Your task to perform on an android device: turn off notifications in google photos Image 0: 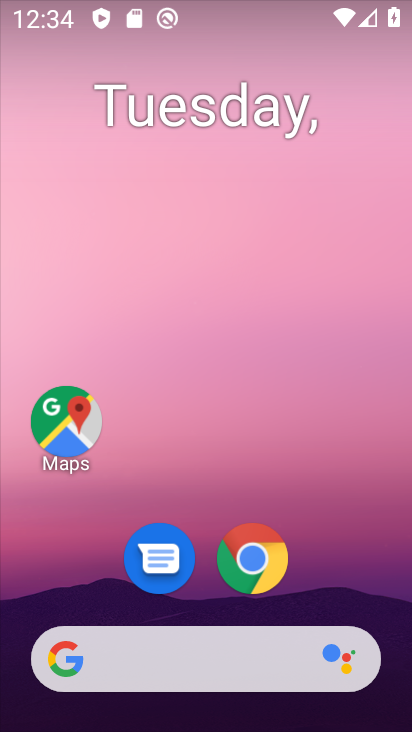
Step 0: drag from (183, 622) to (322, 13)
Your task to perform on an android device: turn off notifications in google photos Image 1: 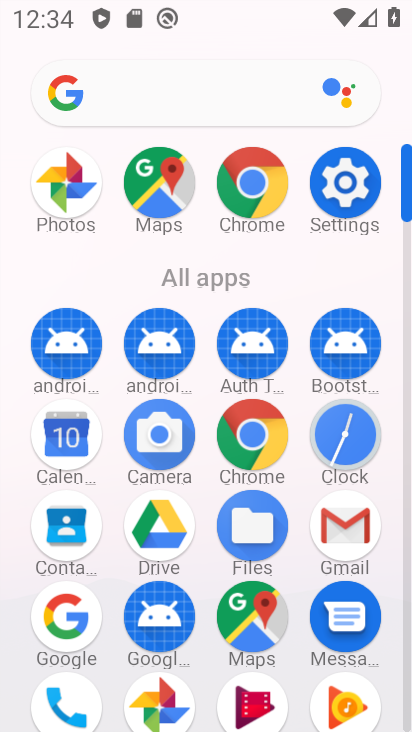
Step 1: drag from (133, 644) to (184, 418)
Your task to perform on an android device: turn off notifications in google photos Image 2: 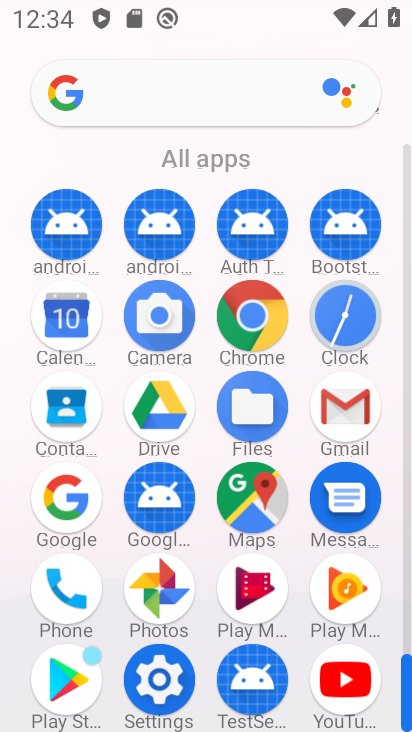
Step 2: click (152, 597)
Your task to perform on an android device: turn off notifications in google photos Image 3: 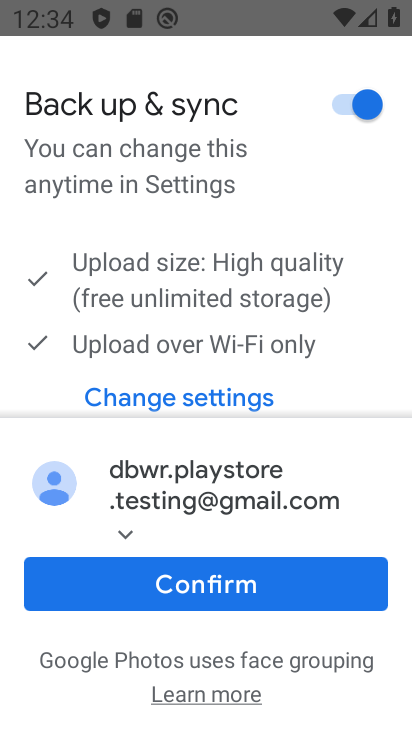
Step 3: click (244, 593)
Your task to perform on an android device: turn off notifications in google photos Image 4: 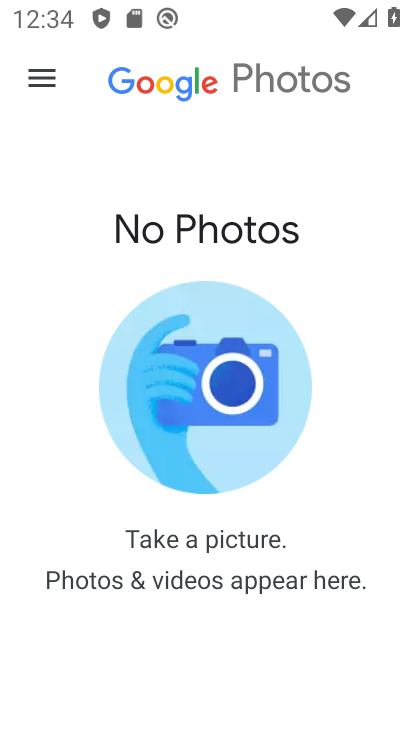
Step 4: click (44, 83)
Your task to perform on an android device: turn off notifications in google photos Image 5: 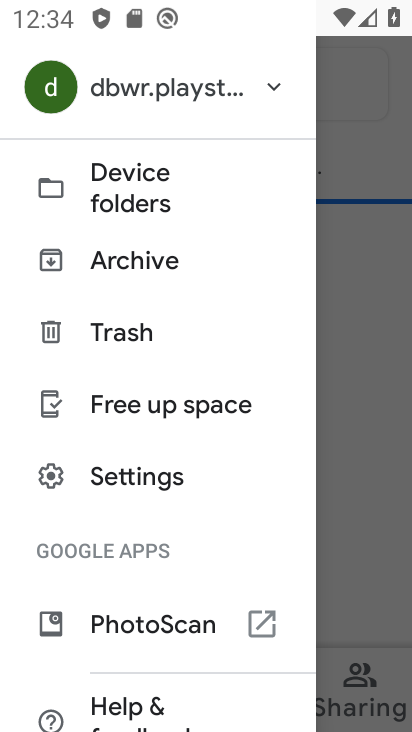
Step 5: drag from (145, 625) to (205, 362)
Your task to perform on an android device: turn off notifications in google photos Image 6: 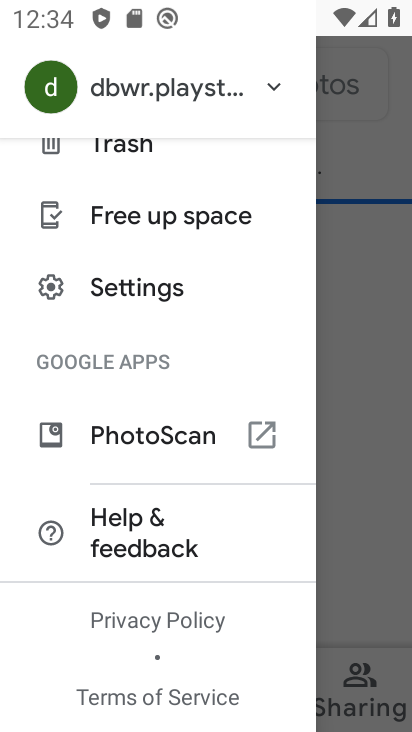
Step 6: click (199, 305)
Your task to perform on an android device: turn off notifications in google photos Image 7: 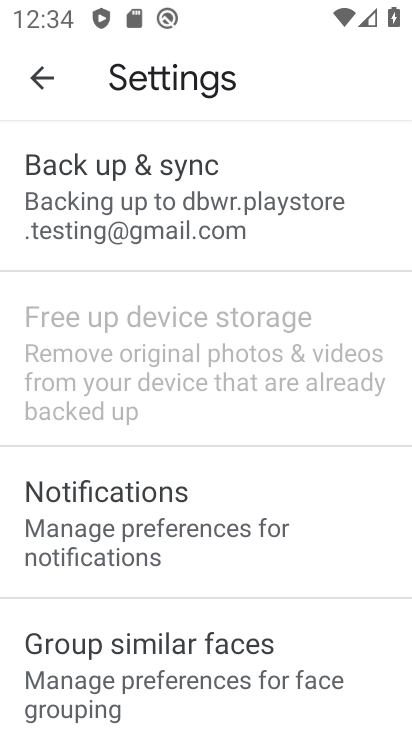
Step 7: click (190, 551)
Your task to perform on an android device: turn off notifications in google photos Image 8: 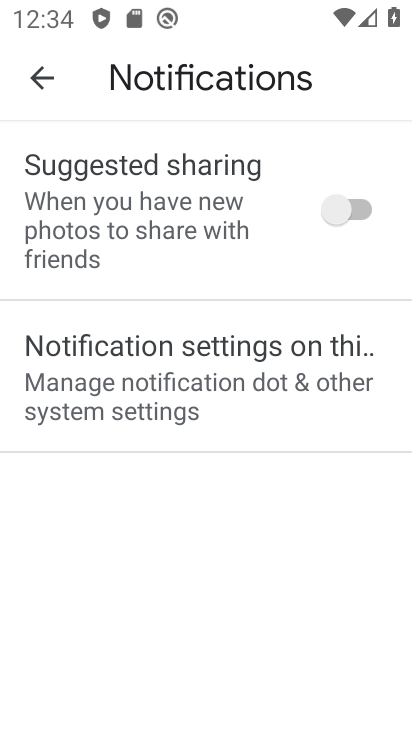
Step 8: click (197, 418)
Your task to perform on an android device: turn off notifications in google photos Image 9: 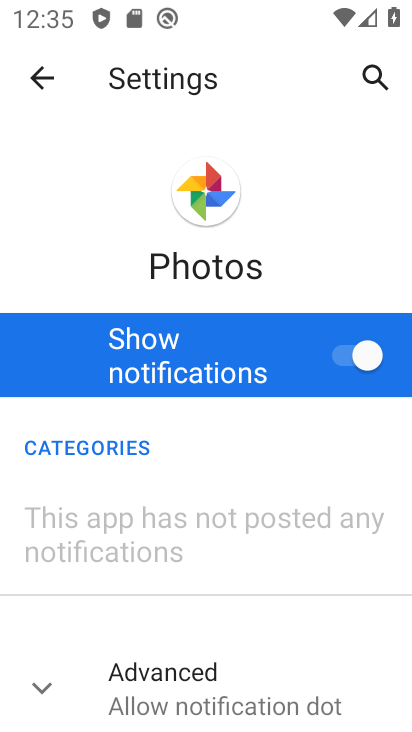
Step 9: click (354, 359)
Your task to perform on an android device: turn off notifications in google photos Image 10: 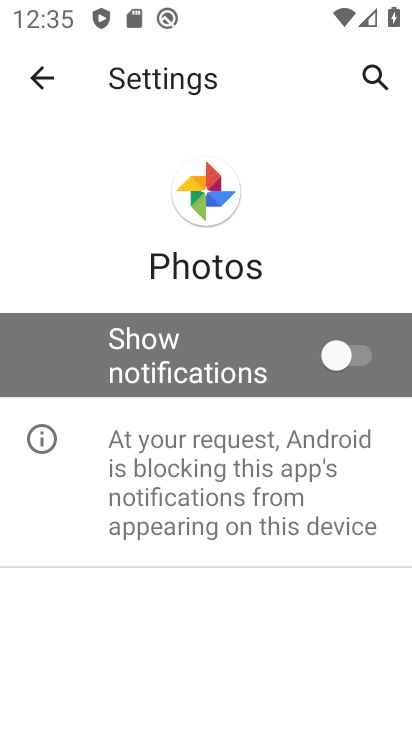
Step 10: task complete